Your task to perform on an android device: Open notification settings Image 0: 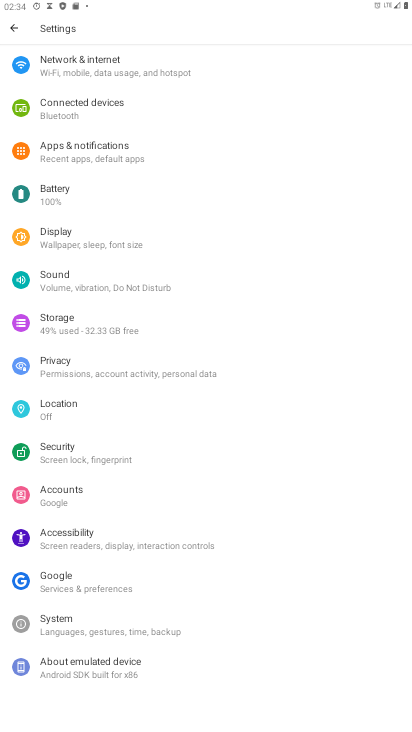
Step 0: click (96, 147)
Your task to perform on an android device: Open notification settings Image 1: 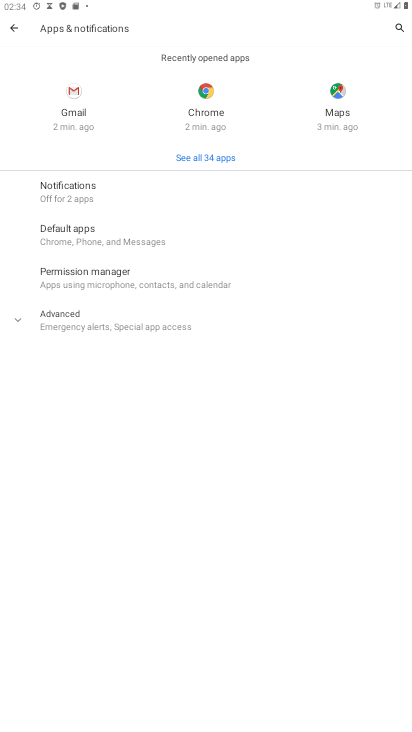
Step 1: click (103, 189)
Your task to perform on an android device: Open notification settings Image 2: 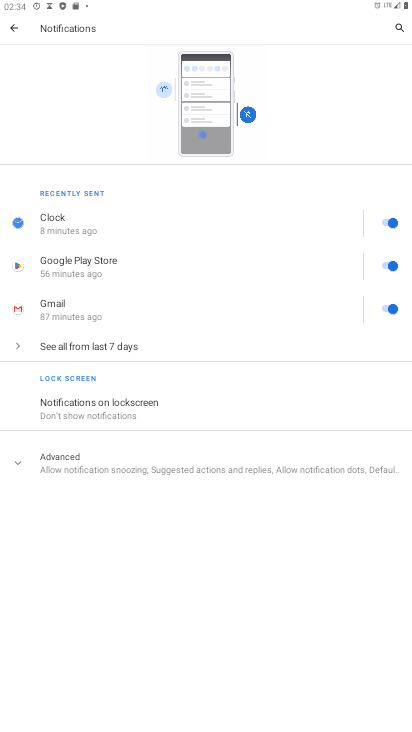
Step 2: task complete